Your task to perform on an android device: change the clock display to analog Image 0: 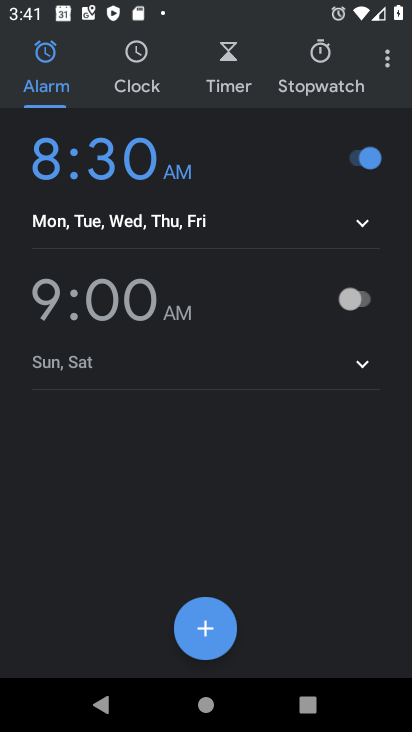
Step 0: press home button
Your task to perform on an android device: change the clock display to analog Image 1: 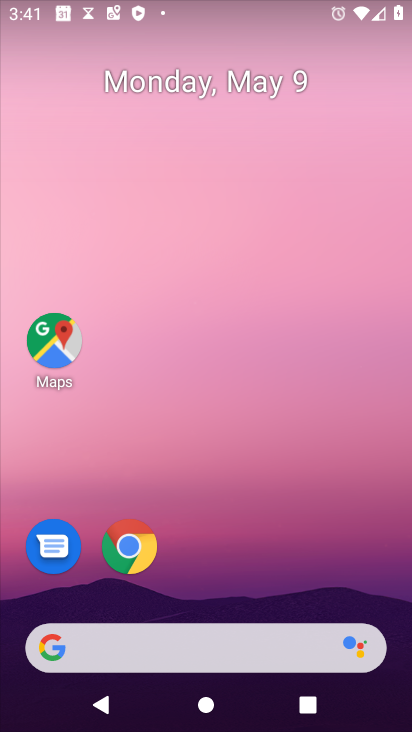
Step 1: drag from (340, 517) to (307, 57)
Your task to perform on an android device: change the clock display to analog Image 2: 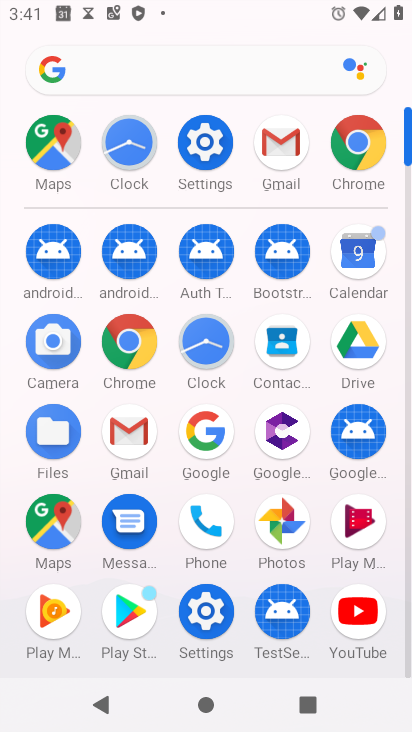
Step 2: click (209, 352)
Your task to perform on an android device: change the clock display to analog Image 3: 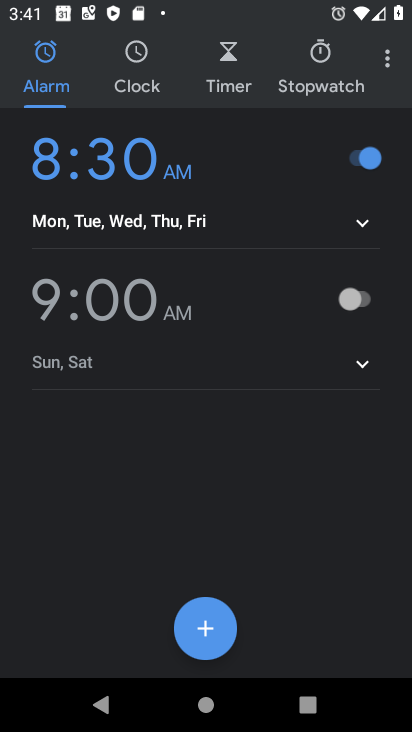
Step 3: click (379, 75)
Your task to perform on an android device: change the clock display to analog Image 4: 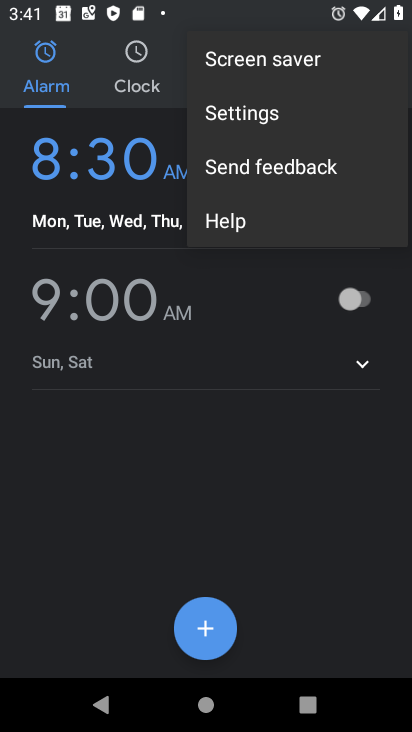
Step 4: click (269, 136)
Your task to perform on an android device: change the clock display to analog Image 5: 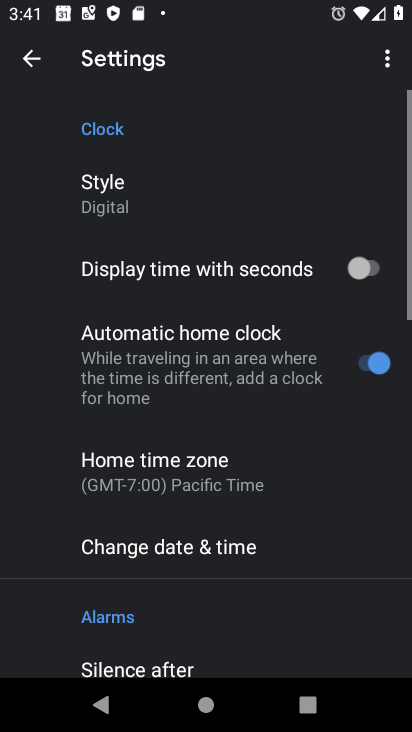
Step 5: click (126, 203)
Your task to perform on an android device: change the clock display to analog Image 6: 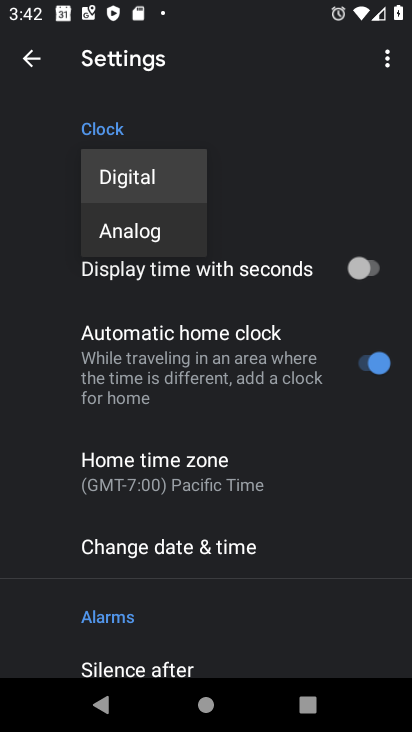
Step 6: click (296, 175)
Your task to perform on an android device: change the clock display to analog Image 7: 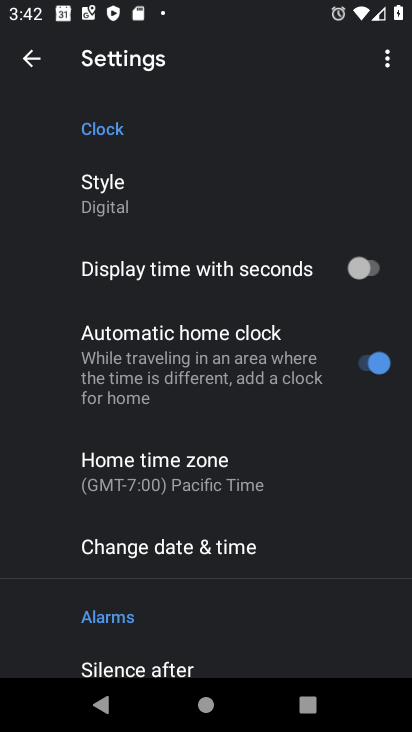
Step 7: click (128, 212)
Your task to perform on an android device: change the clock display to analog Image 8: 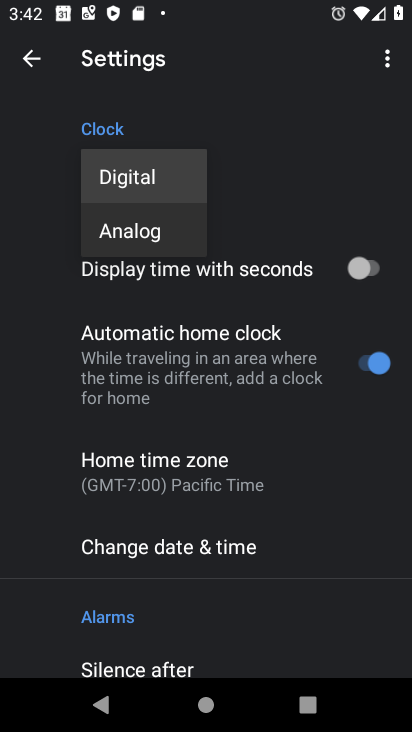
Step 8: click (115, 240)
Your task to perform on an android device: change the clock display to analog Image 9: 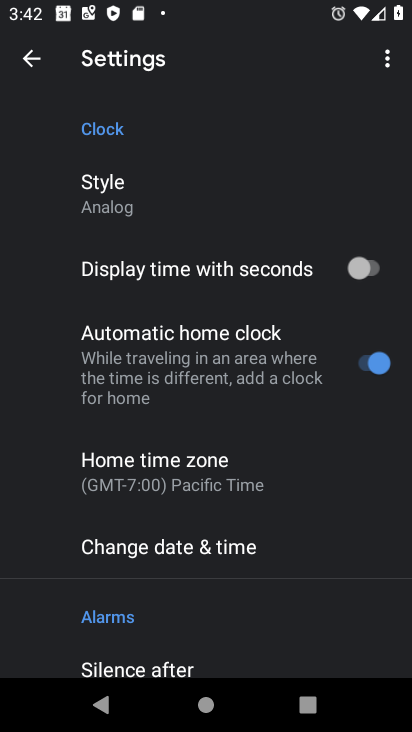
Step 9: task complete